Your task to perform on an android device: turn notification dots off Image 0: 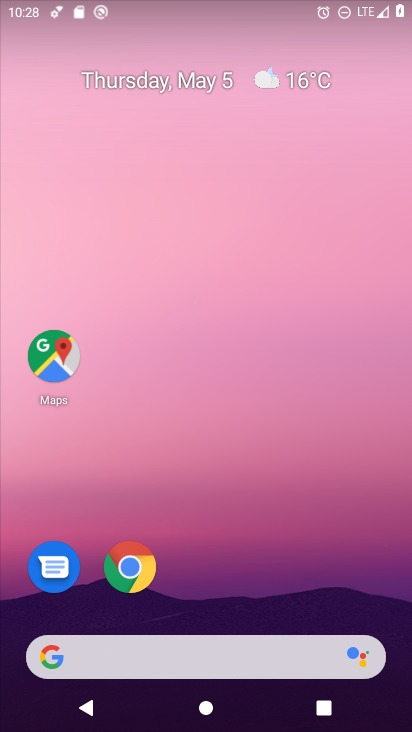
Step 0: drag from (285, 504) to (324, 38)
Your task to perform on an android device: turn notification dots off Image 1: 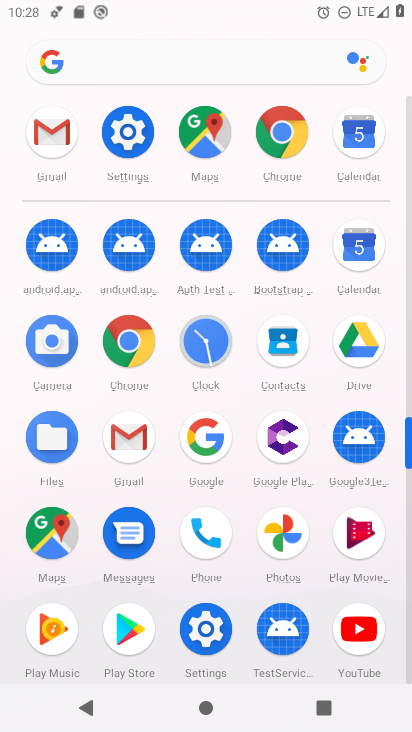
Step 1: click (130, 138)
Your task to perform on an android device: turn notification dots off Image 2: 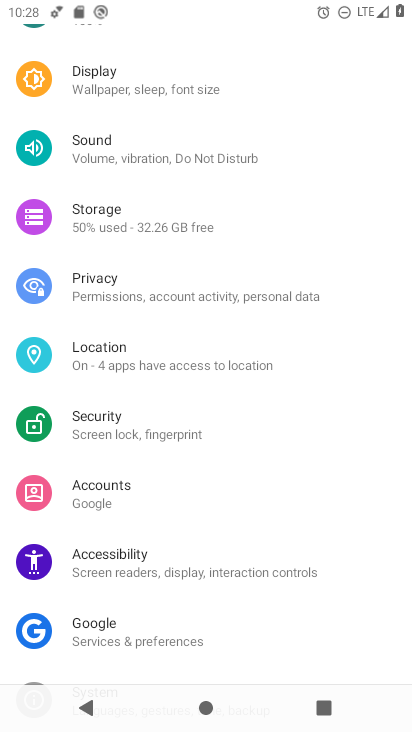
Step 2: drag from (240, 222) to (223, 480)
Your task to perform on an android device: turn notification dots off Image 3: 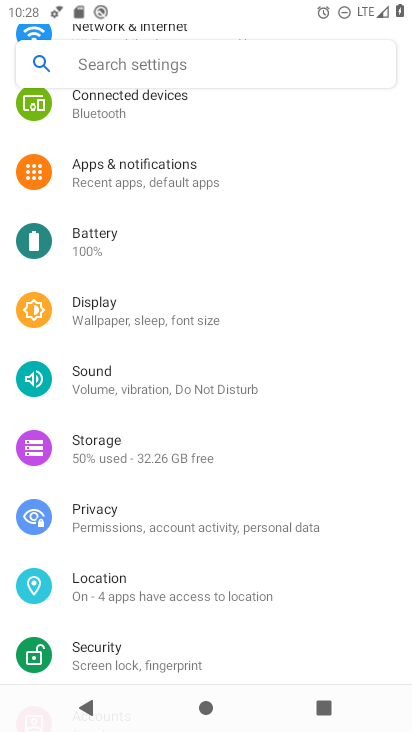
Step 3: click (196, 174)
Your task to perform on an android device: turn notification dots off Image 4: 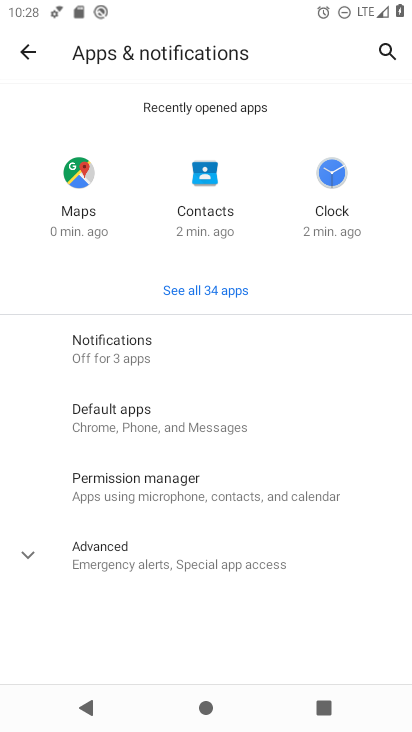
Step 4: click (130, 350)
Your task to perform on an android device: turn notification dots off Image 5: 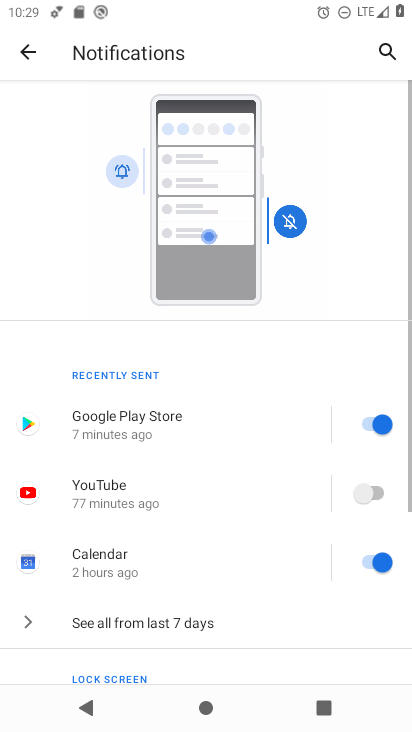
Step 5: drag from (217, 571) to (237, 171)
Your task to perform on an android device: turn notification dots off Image 6: 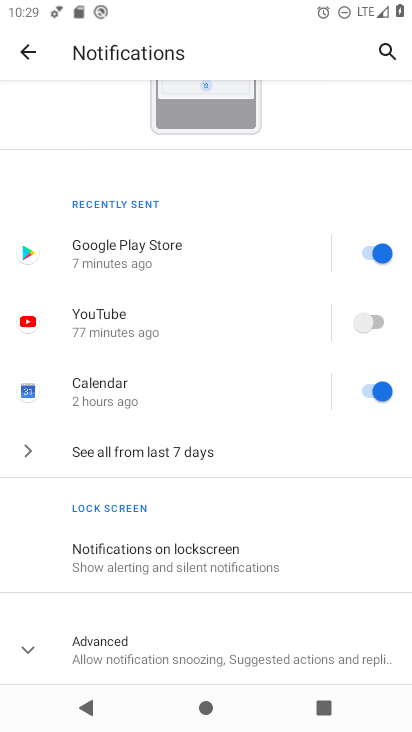
Step 6: click (25, 647)
Your task to perform on an android device: turn notification dots off Image 7: 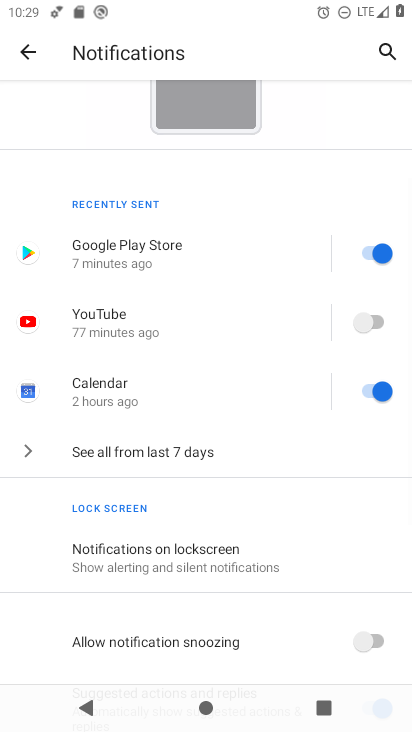
Step 7: task complete